Your task to perform on an android device: turn on showing notifications on the lock screen Image 0: 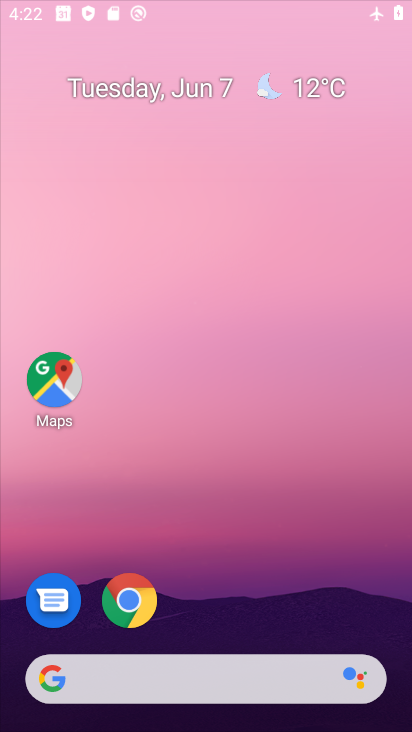
Step 0: click (244, 151)
Your task to perform on an android device: turn on showing notifications on the lock screen Image 1: 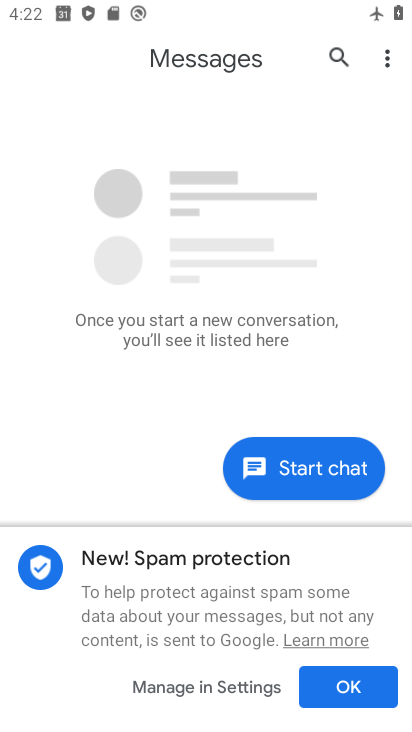
Step 1: press home button
Your task to perform on an android device: turn on showing notifications on the lock screen Image 2: 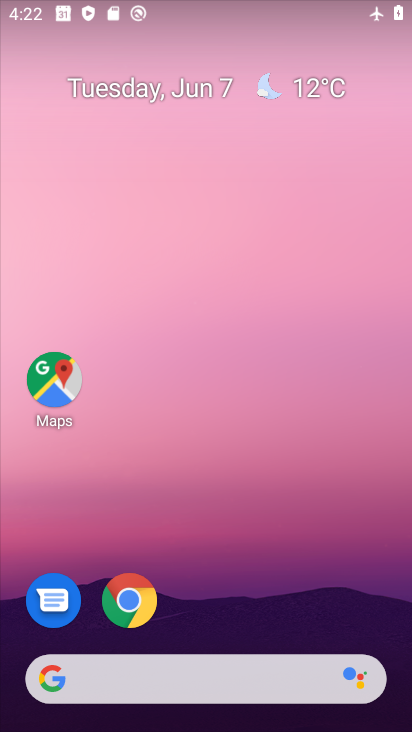
Step 2: drag from (170, 668) to (188, 233)
Your task to perform on an android device: turn on showing notifications on the lock screen Image 3: 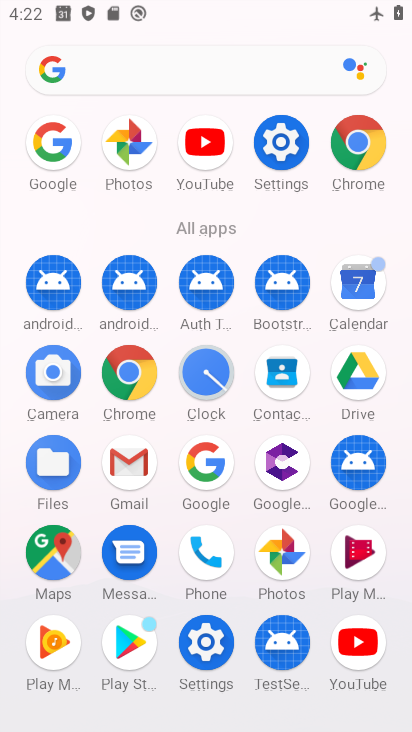
Step 3: click (199, 649)
Your task to perform on an android device: turn on showing notifications on the lock screen Image 4: 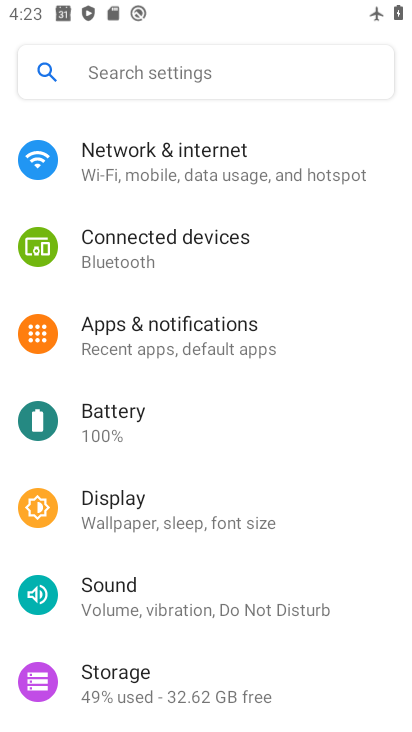
Step 4: drag from (153, 691) to (181, 241)
Your task to perform on an android device: turn on showing notifications on the lock screen Image 5: 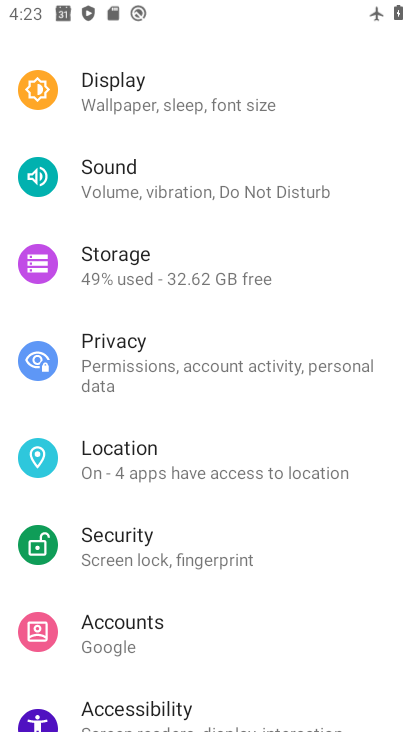
Step 5: click (116, 328)
Your task to perform on an android device: turn on showing notifications on the lock screen Image 6: 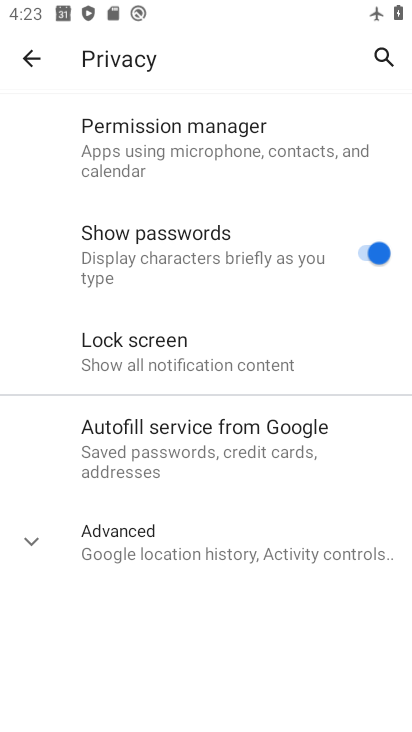
Step 6: click (127, 310)
Your task to perform on an android device: turn on showing notifications on the lock screen Image 7: 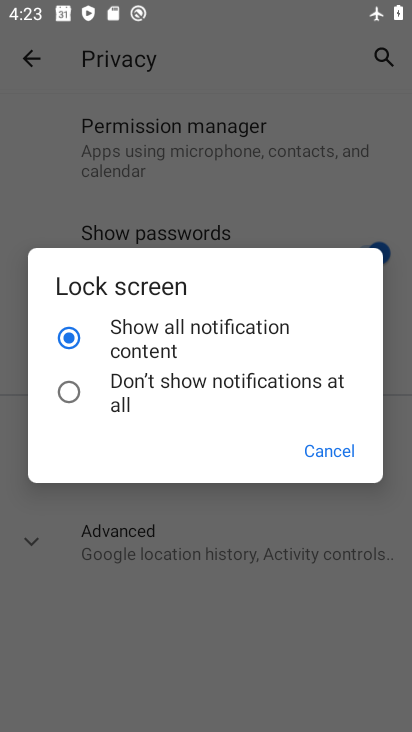
Step 7: task complete